Your task to perform on an android device: Open my contact list Image 0: 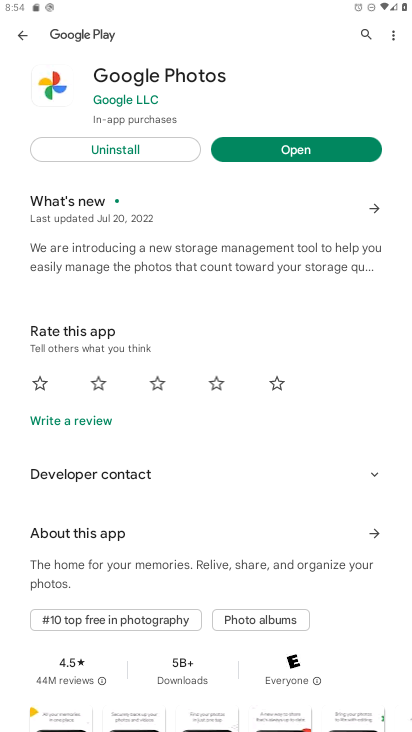
Step 0: press home button
Your task to perform on an android device: Open my contact list Image 1: 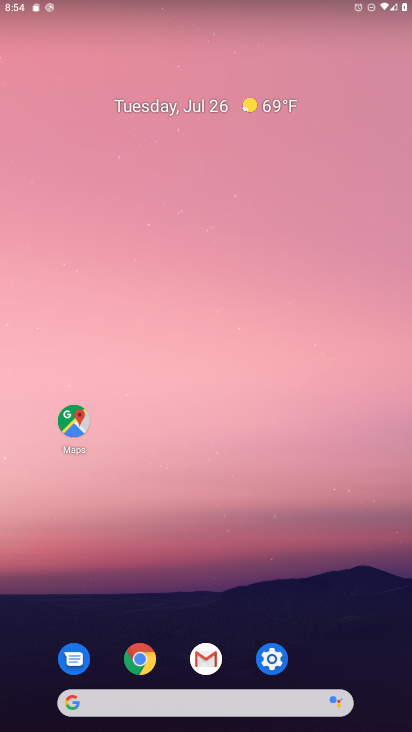
Step 1: drag from (263, 709) to (306, 226)
Your task to perform on an android device: Open my contact list Image 2: 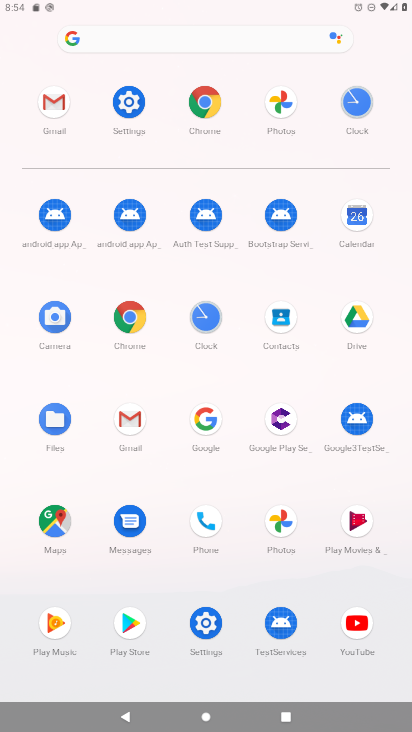
Step 2: click (213, 526)
Your task to perform on an android device: Open my contact list Image 3: 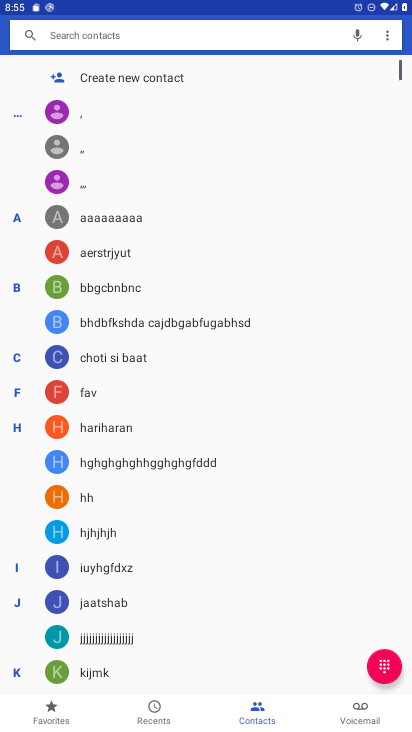
Step 3: click (255, 709)
Your task to perform on an android device: Open my contact list Image 4: 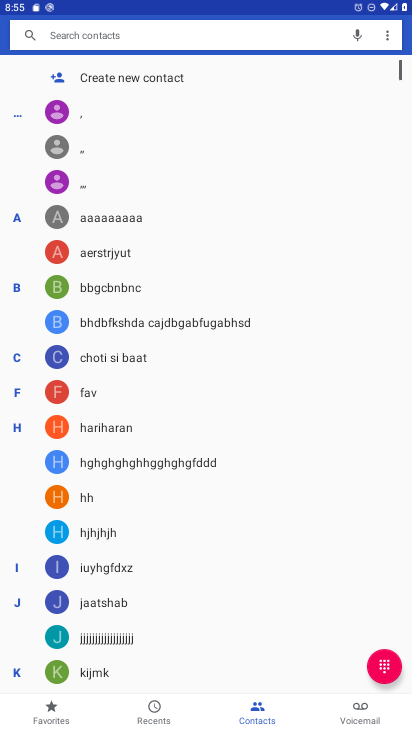
Step 4: task complete